Your task to perform on an android device: Go to calendar. Show me events next week Image 0: 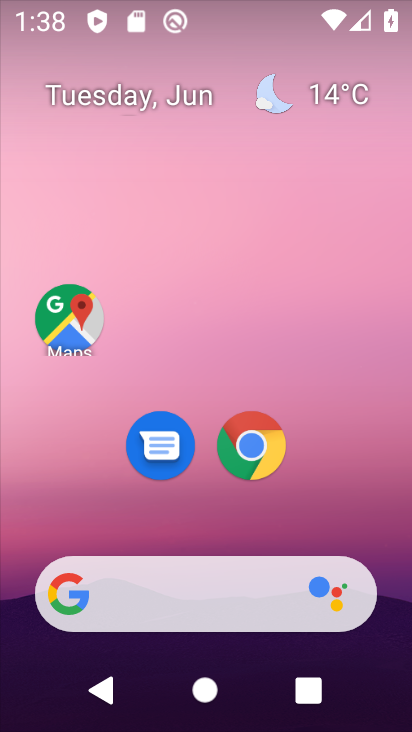
Step 0: drag from (391, 479) to (372, 96)
Your task to perform on an android device: Go to calendar. Show me events next week Image 1: 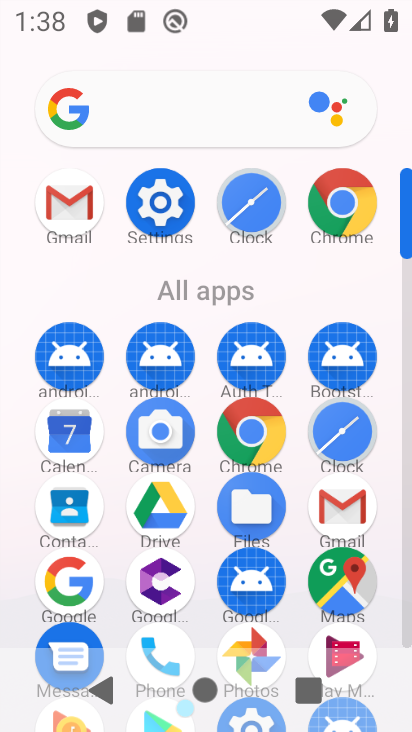
Step 1: click (65, 450)
Your task to perform on an android device: Go to calendar. Show me events next week Image 2: 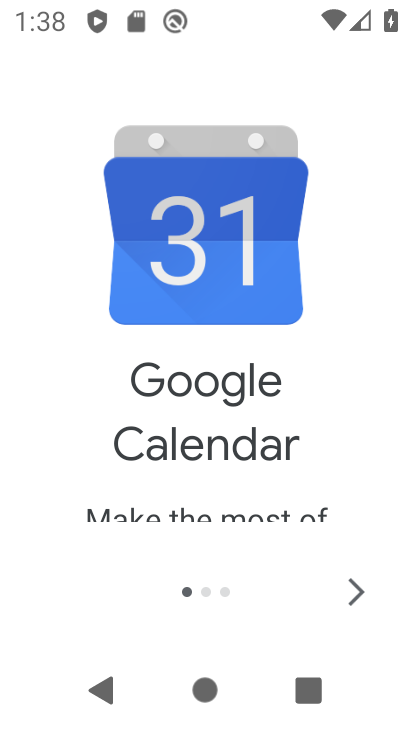
Step 2: click (365, 588)
Your task to perform on an android device: Go to calendar. Show me events next week Image 3: 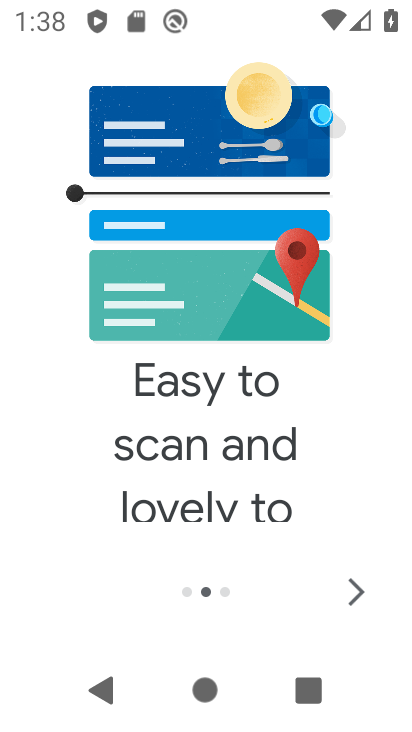
Step 3: click (353, 584)
Your task to perform on an android device: Go to calendar. Show me events next week Image 4: 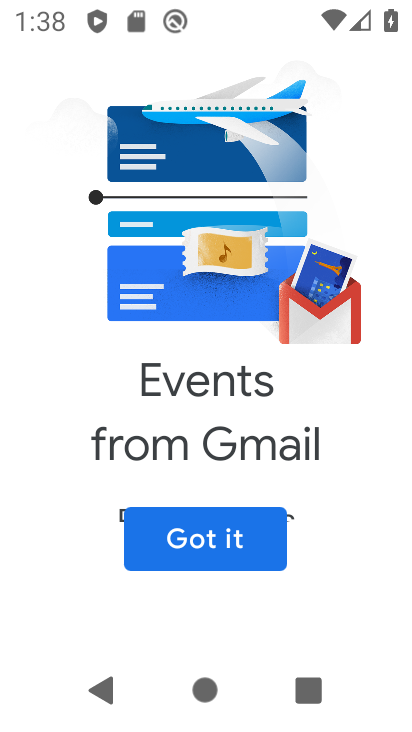
Step 4: click (239, 531)
Your task to perform on an android device: Go to calendar. Show me events next week Image 5: 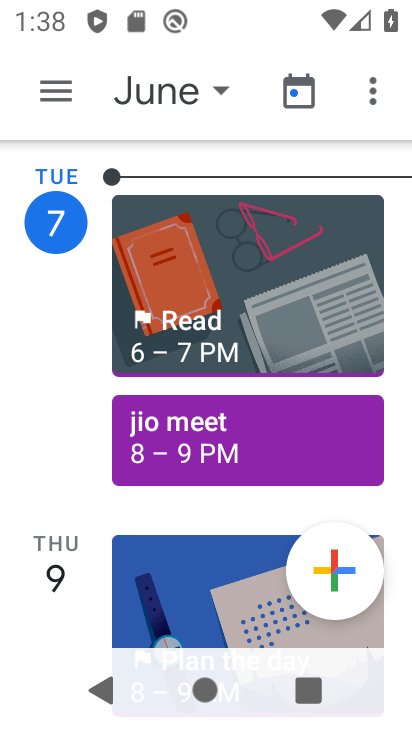
Step 5: click (164, 98)
Your task to perform on an android device: Go to calendar. Show me events next week Image 6: 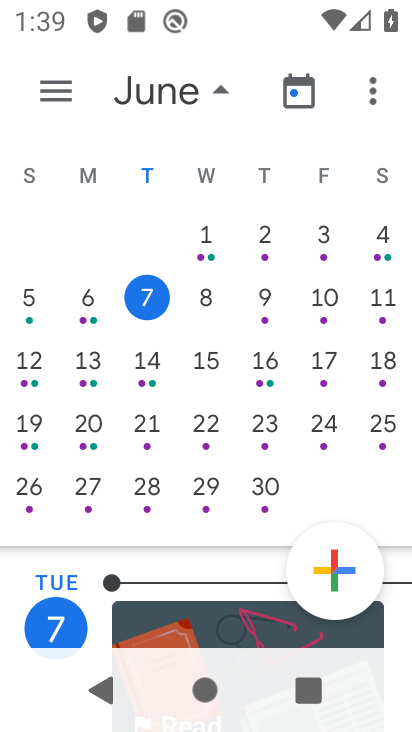
Step 6: click (34, 361)
Your task to perform on an android device: Go to calendar. Show me events next week Image 7: 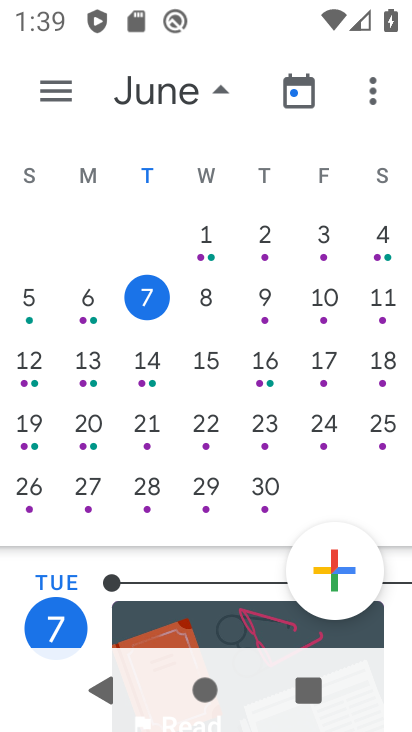
Step 7: click (40, 368)
Your task to perform on an android device: Go to calendar. Show me events next week Image 8: 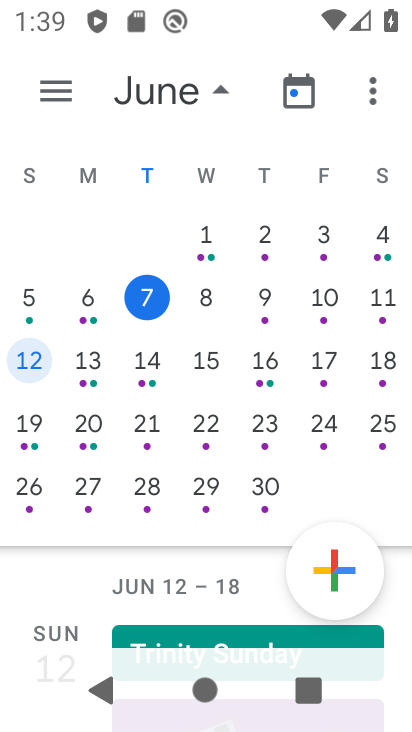
Step 8: task complete